Your task to perform on an android device: Open Google Image 0: 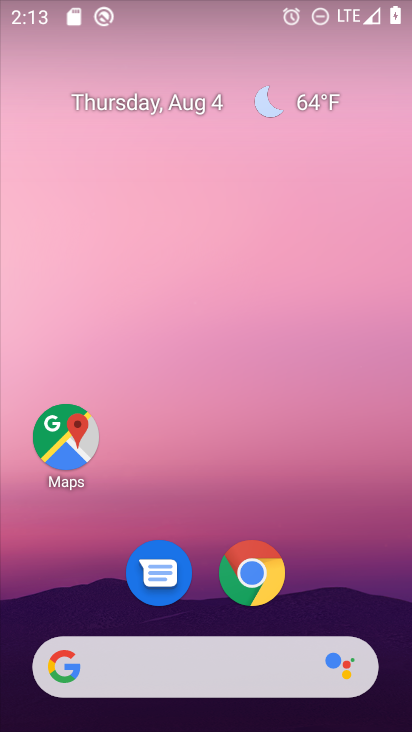
Step 0: drag from (366, 533) to (344, 174)
Your task to perform on an android device: Open Google Image 1: 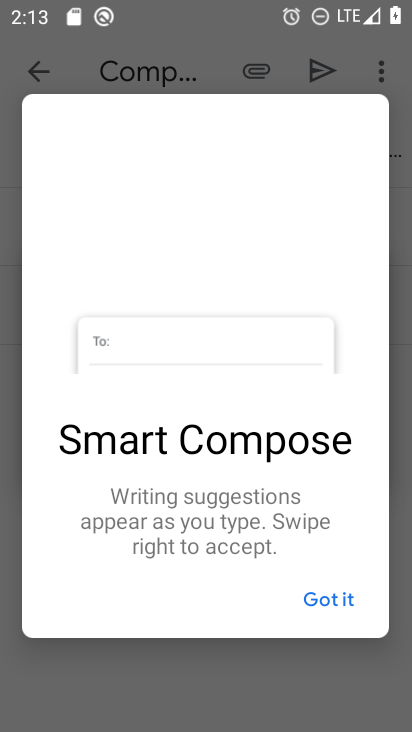
Step 1: press home button
Your task to perform on an android device: Open Google Image 2: 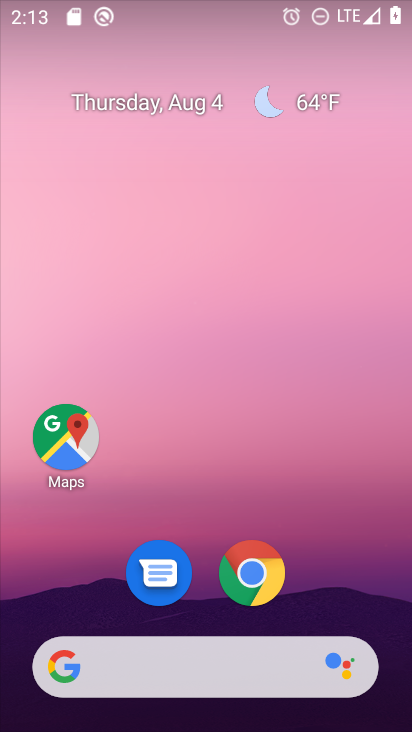
Step 2: drag from (372, 524) to (411, 249)
Your task to perform on an android device: Open Google Image 3: 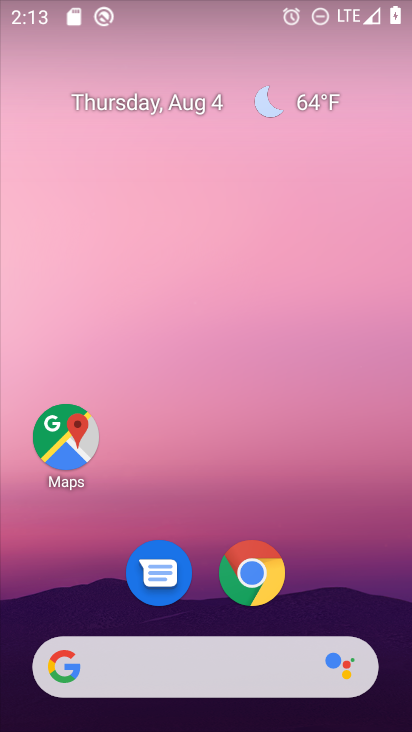
Step 3: drag from (333, 575) to (402, 135)
Your task to perform on an android device: Open Google Image 4: 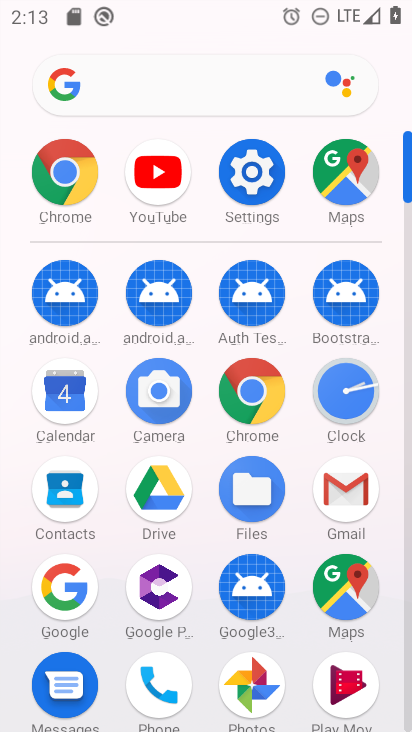
Step 4: click (50, 581)
Your task to perform on an android device: Open Google Image 5: 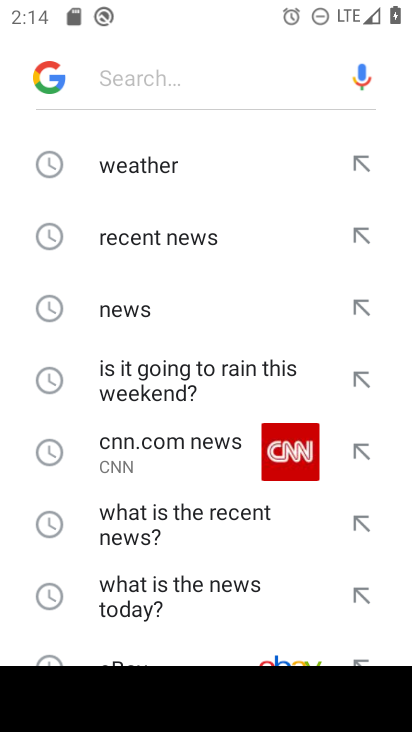
Step 5: task complete